Your task to perform on an android device: Toggle the flashlight Image 0: 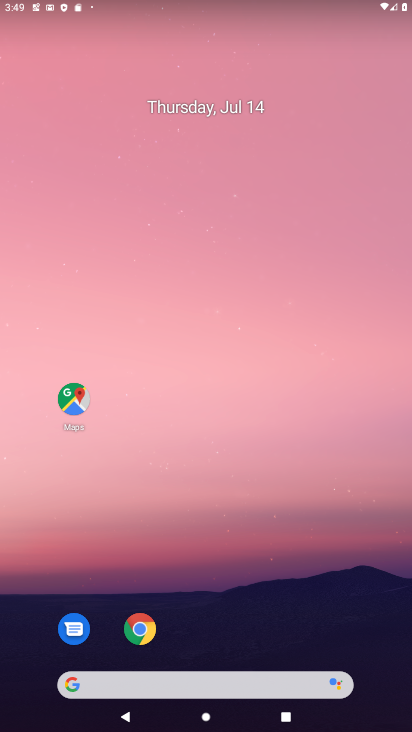
Step 0: drag from (78, 596) to (259, 196)
Your task to perform on an android device: Toggle the flashlight Image 1: 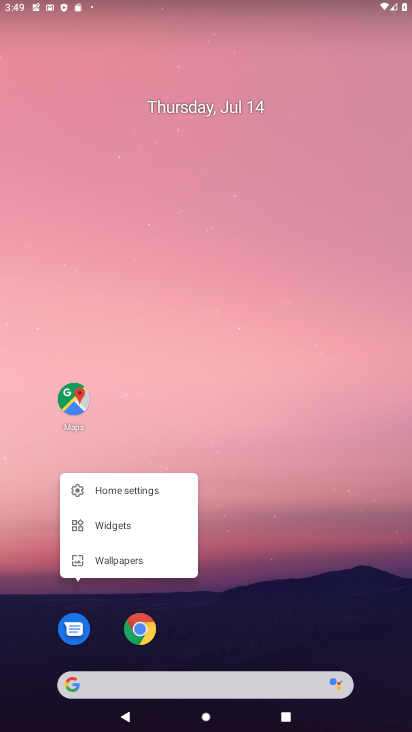
Step 1: drag from (35, 699) to (244, 223)
Your task to perform on an android device: Toggle the flashlight Image 2: 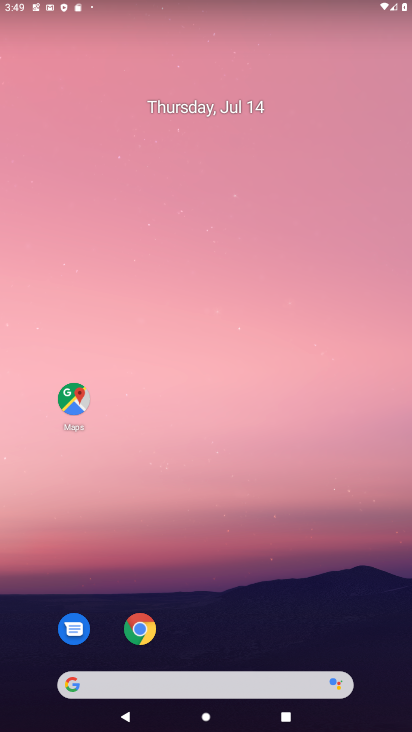
Step 2: drag from (14, 646) to (405, 19)
Your task to perform on an android device: Toggle the flashlight Image 3: 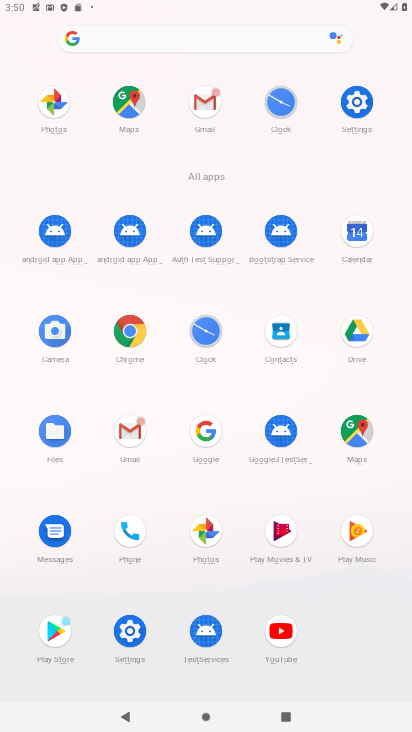
Step 3: click (130, 634)
Your task to perform on an android device: Toggle the flashlight Image 4: 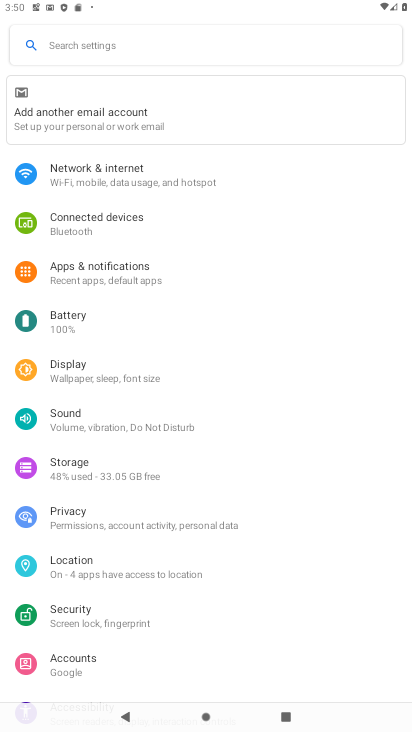
Step 4: click (128, 269)
Your task to perform on an android device: Toggle the flashlight Image 5: 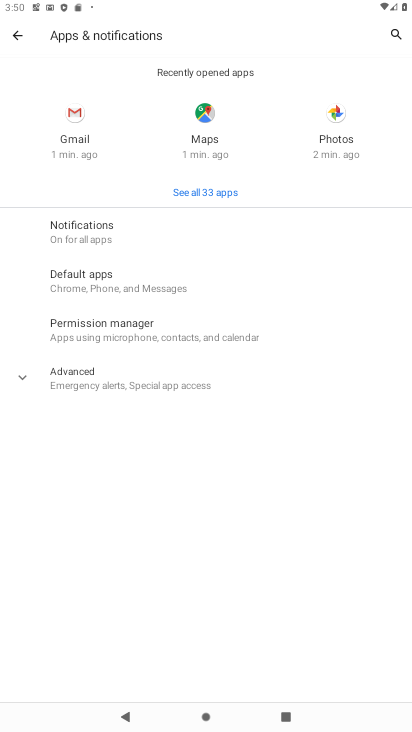
Step 5: click (119, 232)
Your task to perform on an android device: Toggle the flashlight Image 6: 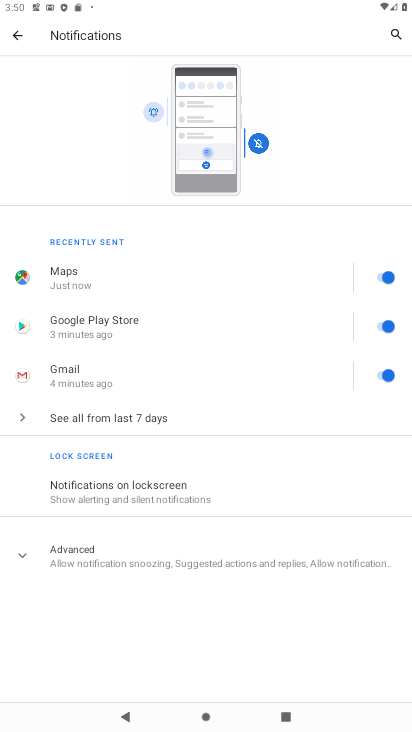
Step 6: click (90, 546)
Your task to perform on an android device: Toggle the flashlight Image 7: 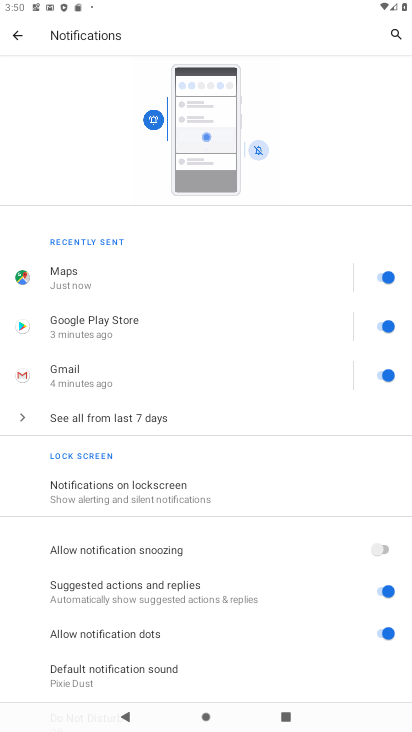
Step 7: task complete